Your task to perform on an android device: make emails show in primary in the gmail app Image 0: 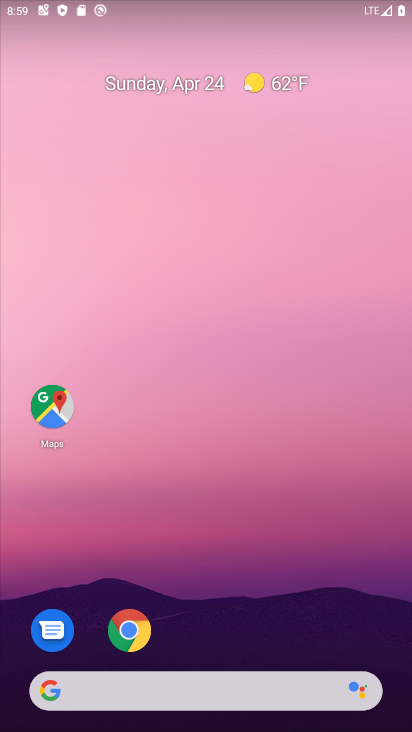
Step 0: drag from (256, 505) to (248, 4)
Your task to perform on an android device: make emails show in primary in the gmail app Image 1: 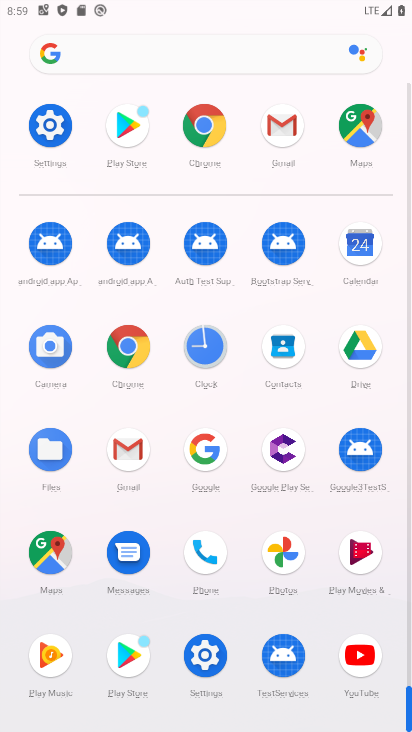
Step 1: drag from (2, 479) to (2, 274)
Your task to perform on an android device: make emails show in primary in the gmail app Image 2: 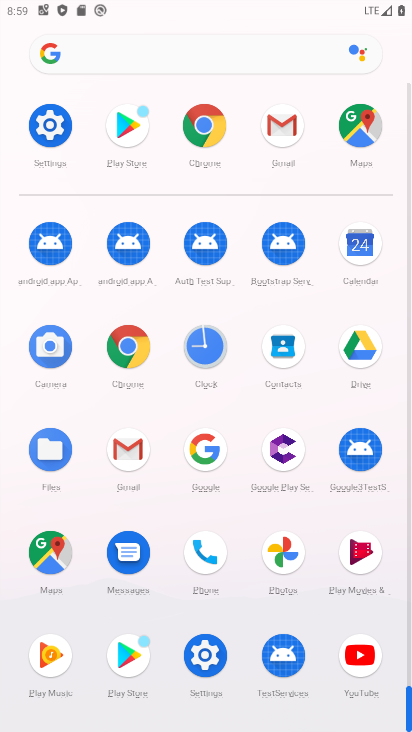
Step 2: click (278, 120)
Your task to perform on an android device: make emails show in primary in the gmail app Image 3: 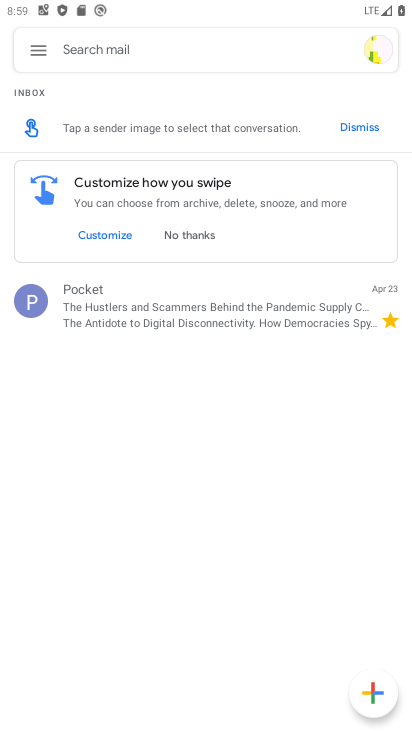
Step 3: click (38, 49)
Your task to perform on an android device: make emails show in primary in the gmail app Image 4: 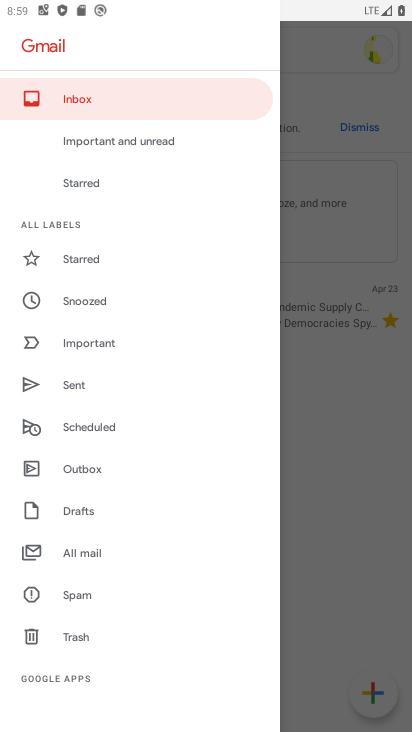
Step 4: drag from (129, 601) to (158, 133)
Your task to perform on an android device: make emails show in primary in the gmail app Image 5: 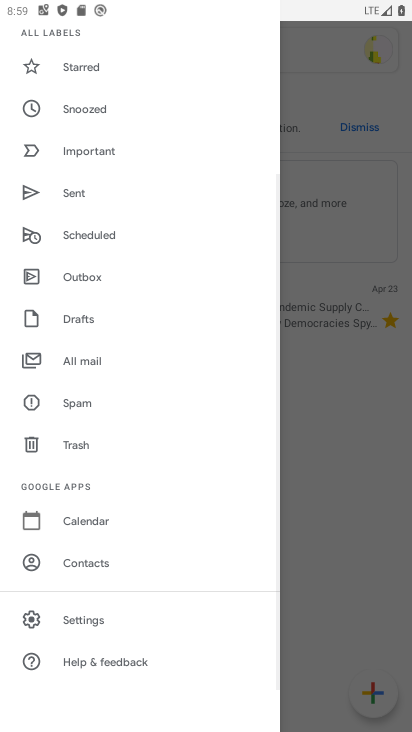
Step 5: click (85, 621)
Your task to perform on an android device: make emails show in primary in the gmail app Image 6: 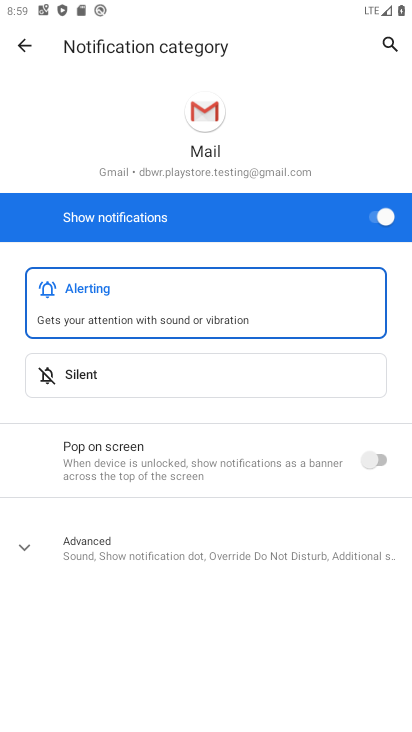
Step 6: click (48, 550)
Your task to perform on an android device: make emails show in primary in the gmail app Image 7: 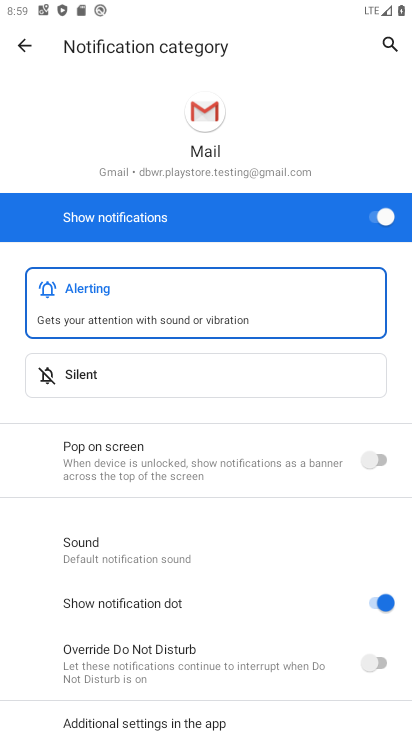
Step 7: drag from (251, 635) to (262, 196)
Your task to perform on an android device: make emails show in primary in the gmail app Image 8: 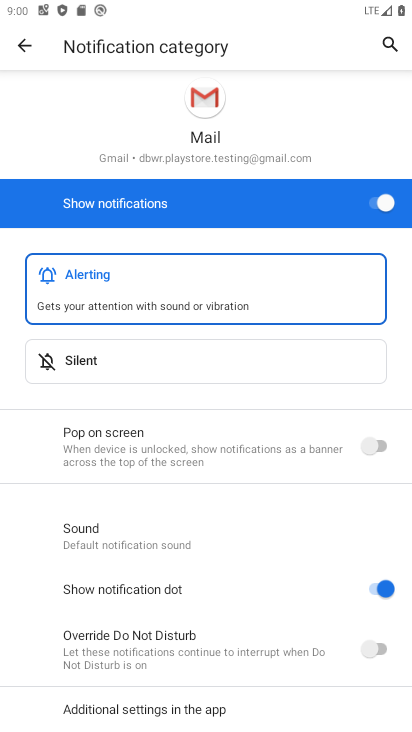
Step 8: click (22, 45)
Your task to perform on an android device: make emails show in primary in the gmail app Image 9: 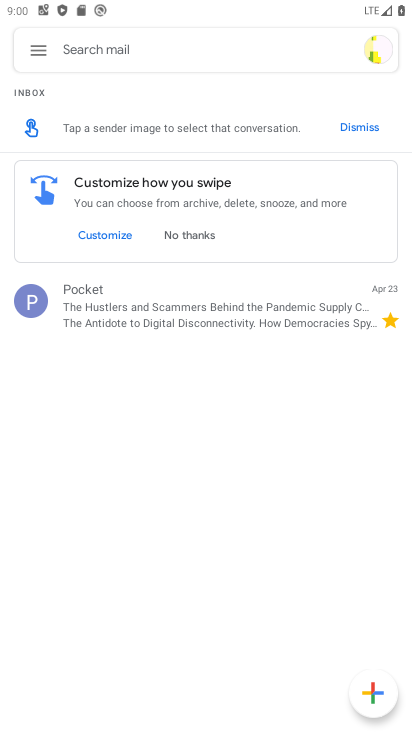
Step 9: click (29, 45)
Your task to perform on an android device: make emails show in primary in the gmail app Image 10: 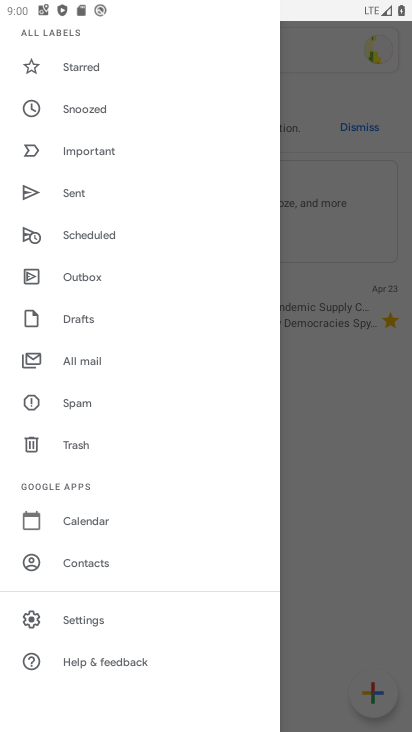
Step 10: click (85, 617)
Your task to perform on an android device: make emails show in primary in the gmail app Image 11: 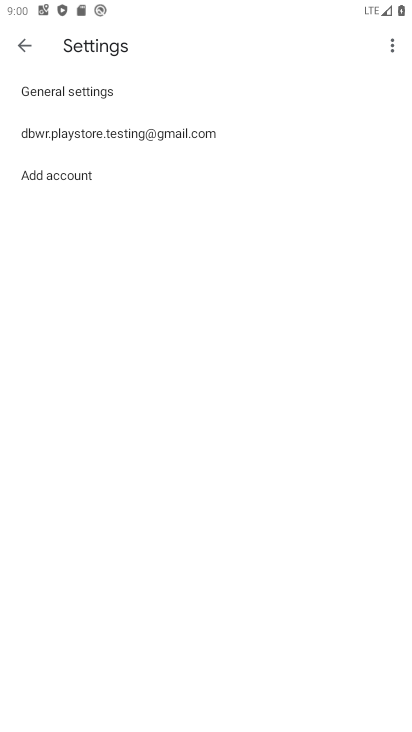
Step 11: click (74, 126)
Your task to perform on an android device: make emails show in primary in the gmail app Image 12: 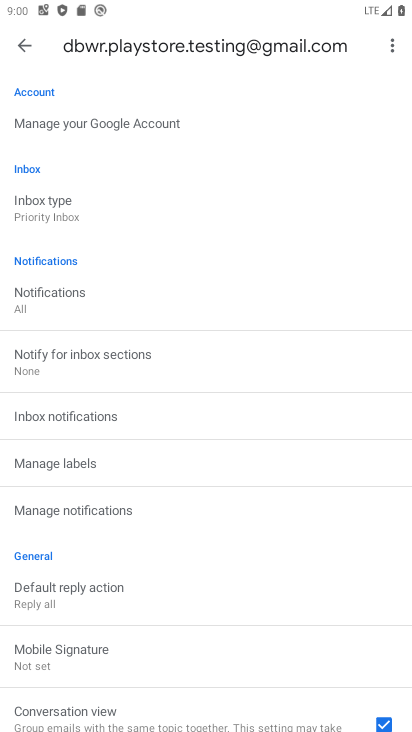
Step 12: click (54, 212)
Your task to perform on an android device: make emails show in primary in the gmail app Image 13: 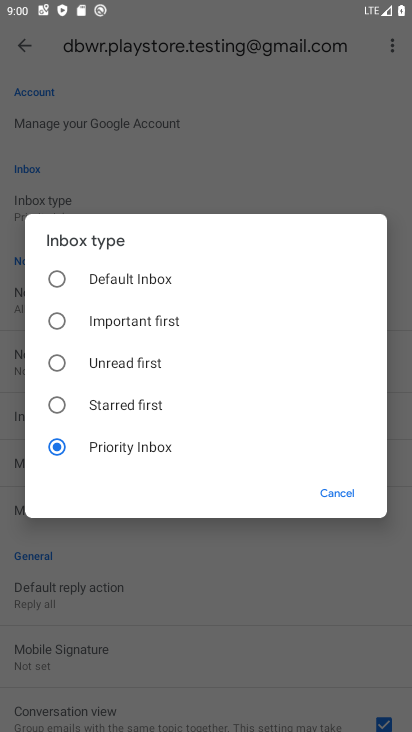
Step 13: click (103, 272)
Your task to perform on an android device: make emails show in primary in the gmail app Image 14: 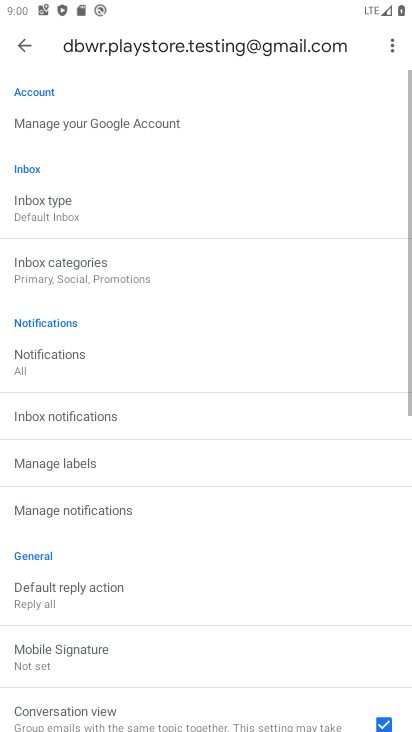
Step 14: click (103, 281)
Your task to perform on an android device: make emails show in primary in the gmail app Image 15: 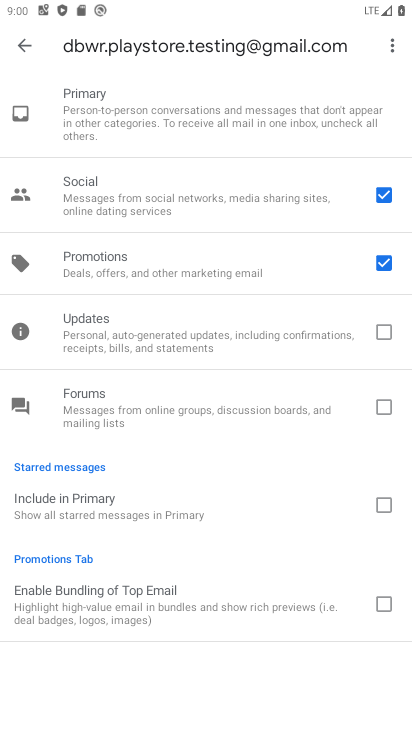
Step 15: click (379, 265)
Your task to perform on an android device: make emails show in primary in the gmail app Image 16: 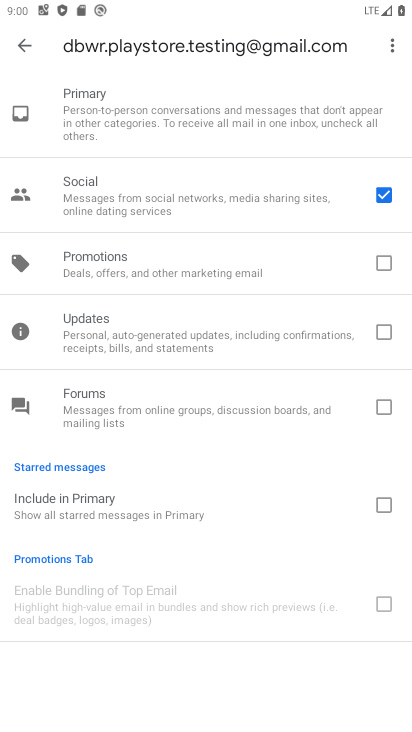
Step 16: click (386, 191)
Your task to perform on an android device: make emails show in primary in the gmail app Image 17: 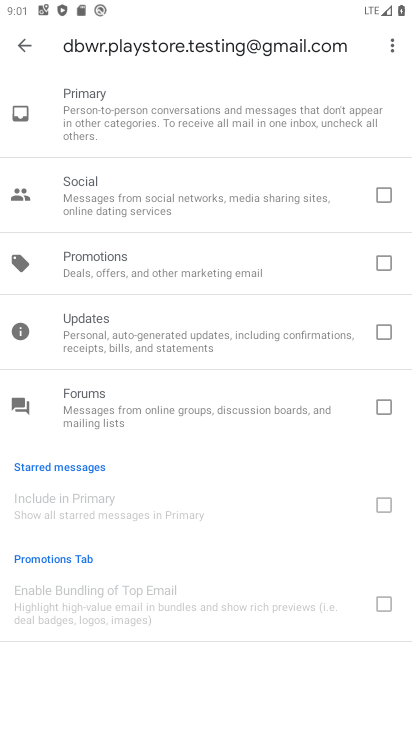
Step 17: click (23, 41)
Your task to perform on an android device: make emails show in primary in the gmail app Image 18: 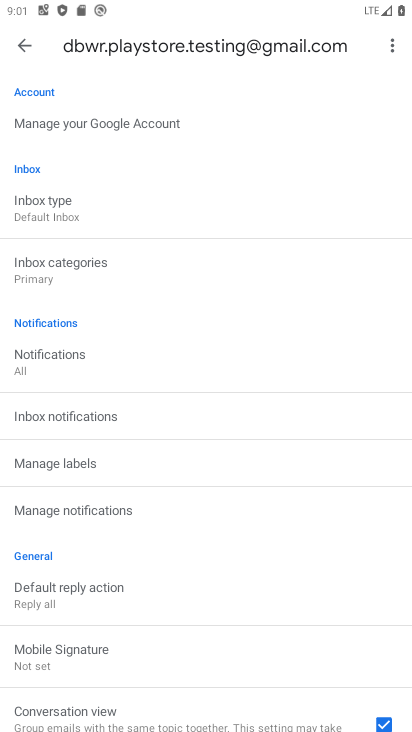
Step 18: task complete